Your task to perform on an android device: turn off notifications in google photos Image 0: 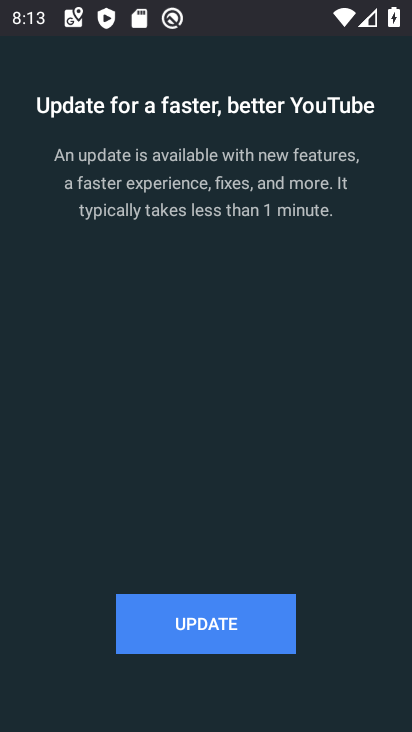
Step 0: press home button
Your task to perform on an android device: turn off notifications in google photos Image 1: 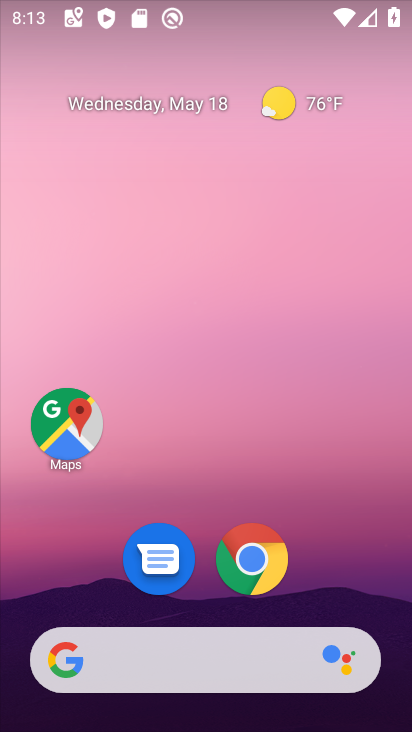
Step 1: drag from (212, 586) to (200, 140)
Your task to perform on an android device: turn off notifications in google photos Image 2: 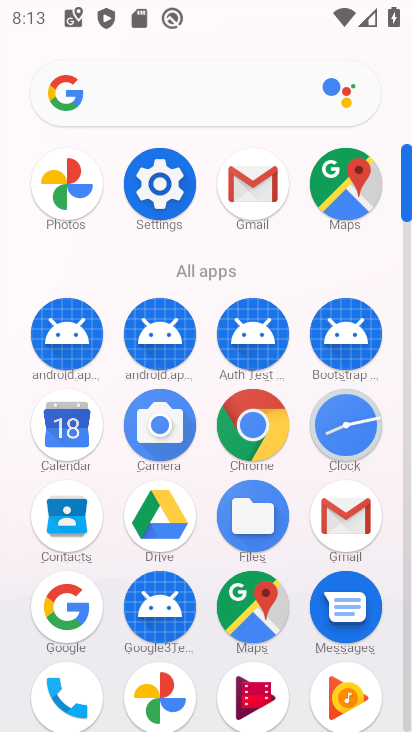
Step 2: click (65, 180)
Your task to perform on an android device: turn off notifications in google photos Image 3: 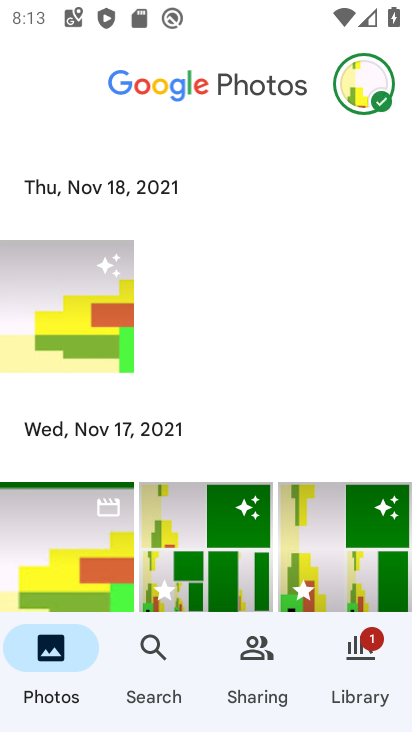
Step 3: click (372, 88)
Your task to perform on an android device: turn off notifications in google photos Image 4: 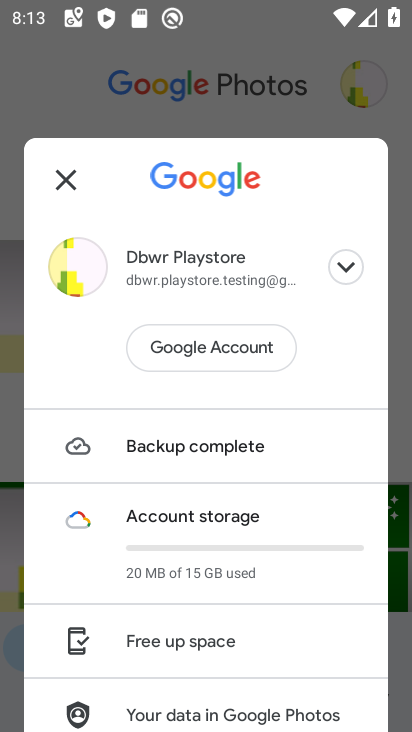
Step 4: drag from (235, 597) to (264, 235)
Your task to perform on an android device: turn off notifications in google photos Image 5: 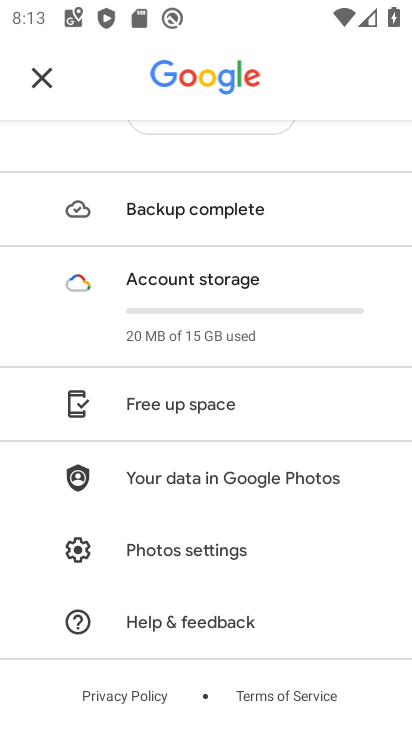
Step 5: click (202, 549)
Your task to perform on an android device: turn off notifications in google photos Image 6: 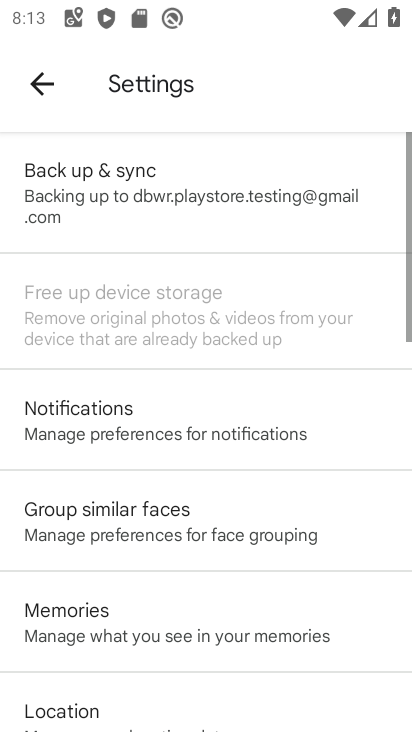
Step 6: drag from (191, 596) to (173, 311)
Your task to perform on an android device: turn off notifications in google photos Image 7: 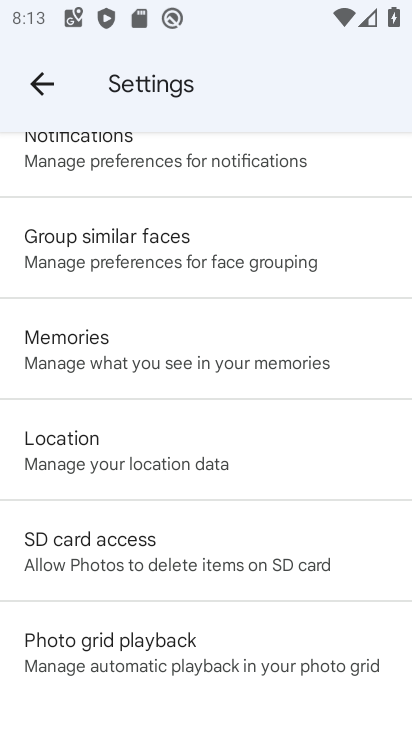
Step 7: click (96, 141)
Your task to perform on an android device: turn off notifications in google photos Image 8: 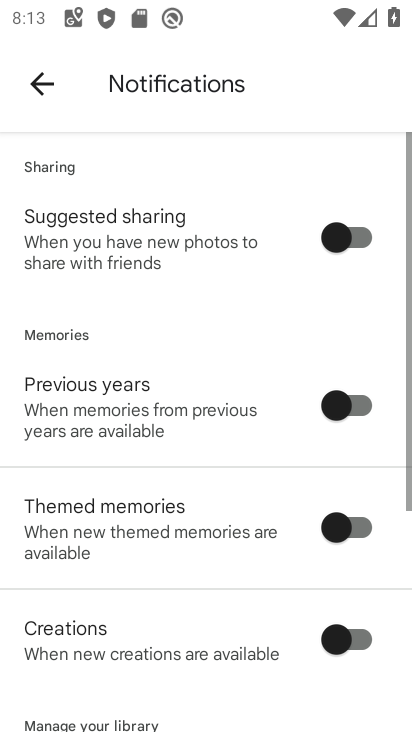
Step 8: drag from (224, 554) to (177, 80)
Your task to perform on an android device: turn off notifications in google photos Image 9: 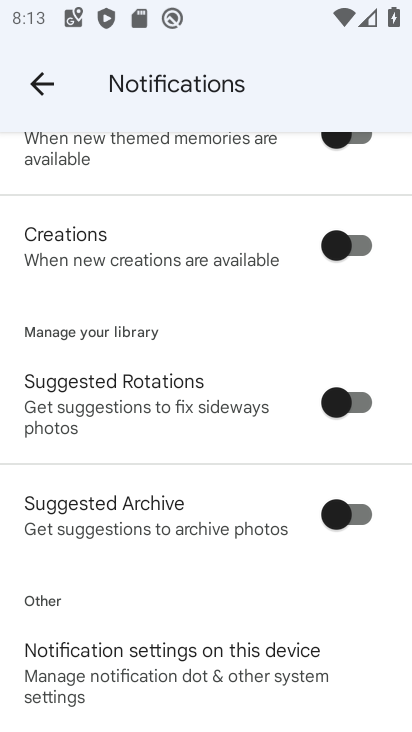
Step 9: drag from (188, 579) to (195, 283)
Your task to perform on an android device: turn off notifications in google photos Image 10: 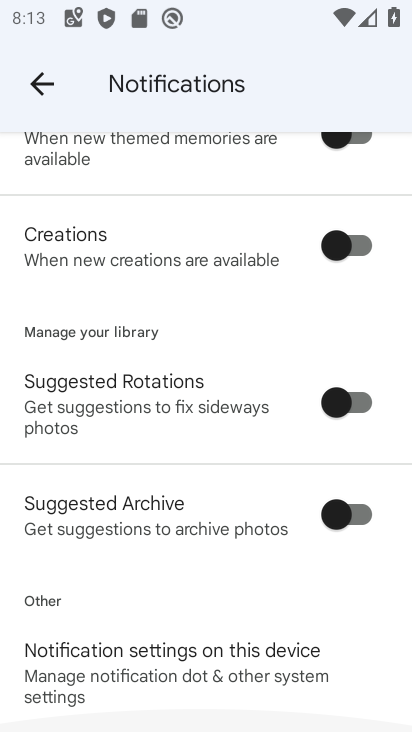
Step 10: click (165, 663)
Your task to perform on an android device: turn off notifications in google photos Image 11: 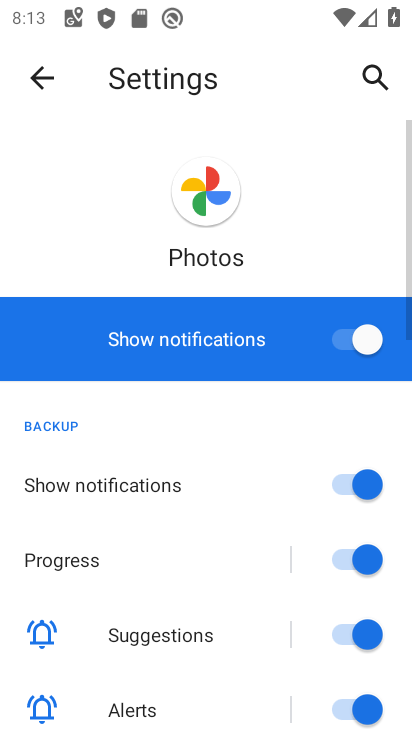
Step 11: click (356, 345)
Your task to perform on an android device: turn off notifications in google photos Image 12: 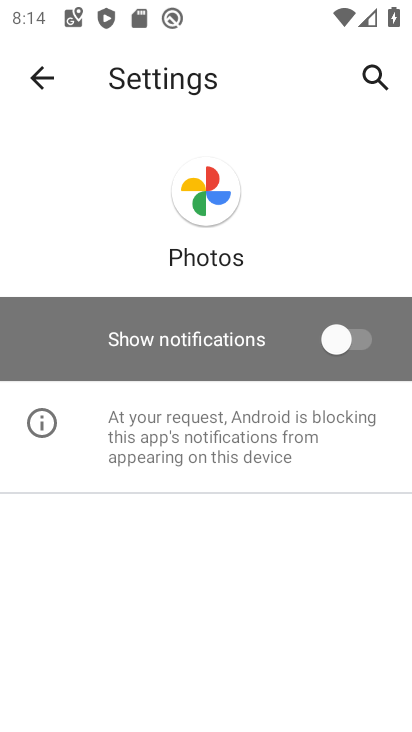
Step 12: task complete